Your task to perform on an android device: turn vacation reply on in the gmail app Image 0: 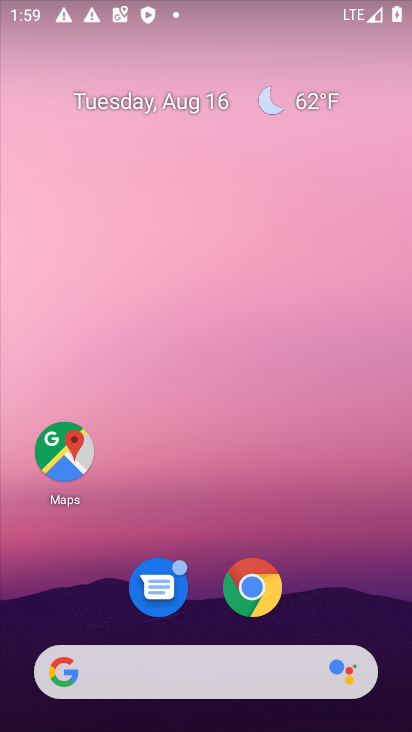
Step 0: drag from (190, 628) to (367, 0)
Your task to perform on an android device: turn vacation reply on in the gmail app Image 1: 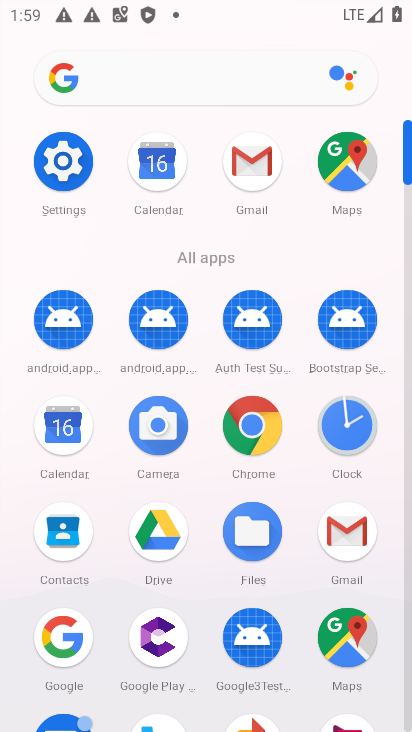
Step 1: click (260, 164)
Your task to perform on an android device: turn vacation reply on in the gmail app Image 2: 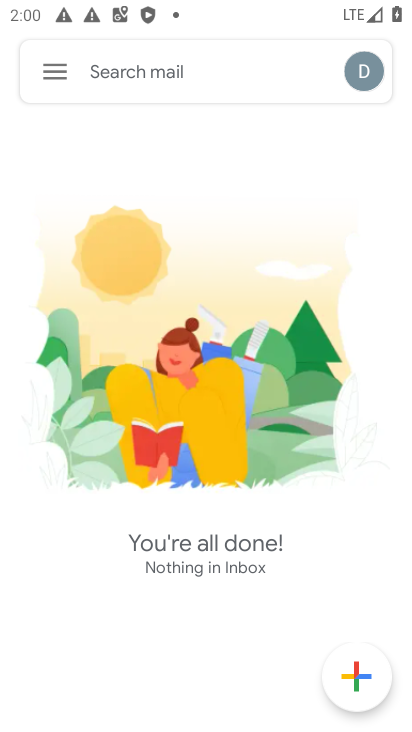
Step 2: click (49, 67)
Your task to perform on an android device: turn vacation reply on in the gmail app Image 3: 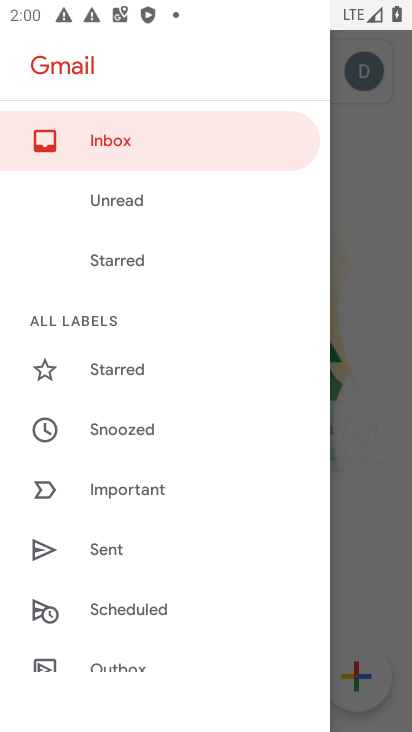
Step 3: drag from (121, 600) to (270, 51)
Your task to perform on an android device: turn vacation reply on in the gmail app Image 4: 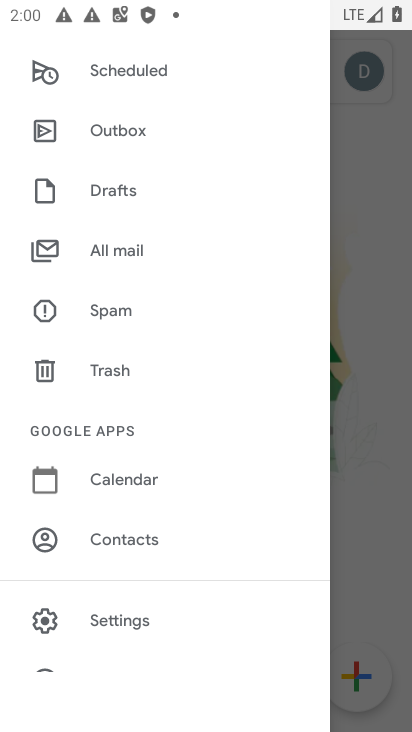
Step 4: click (120, 617)
Your task to perform on an android device: turn vacation reply on in the gmail app Image 5: 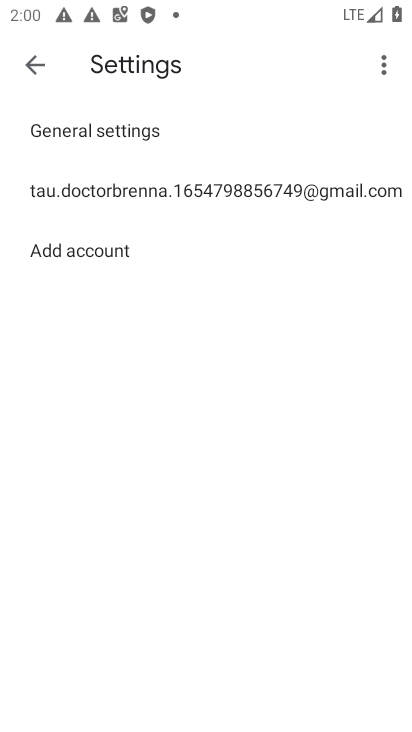
Step 5: click (184, 191)
Your task to perform on an android device: turn vacation reply on in the gmail app Image 6: 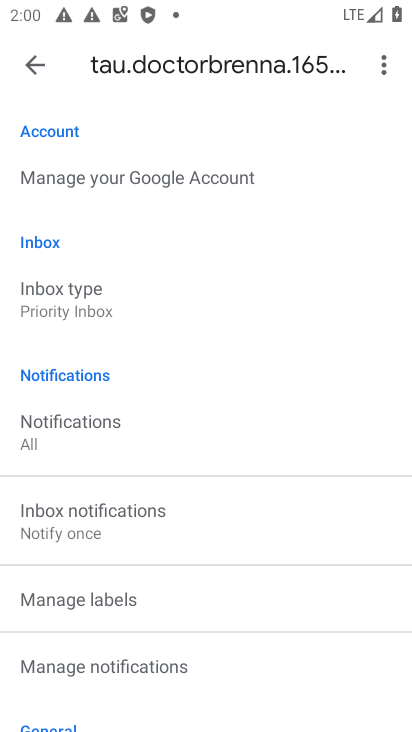
Step 6: drag from (148, 575) to (267, 80)
Your task to perform on an android device: turn vacation reply on in the gmail app Image 7: 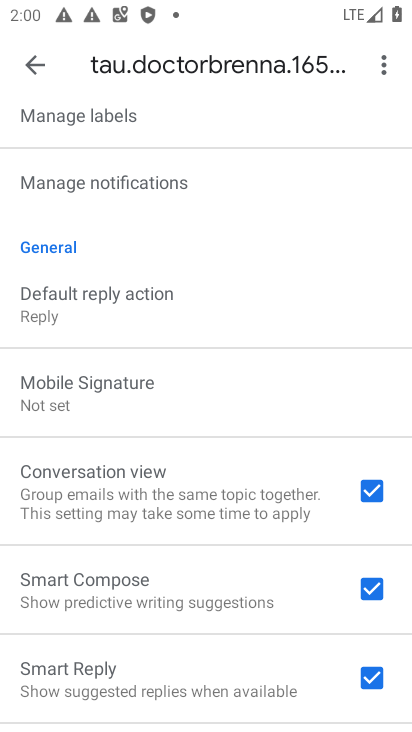
Step 7: drag from (124, 649) to (221, 297)
Your task to perform on an android device: turn vacation reply on in the gmail app Image 8: 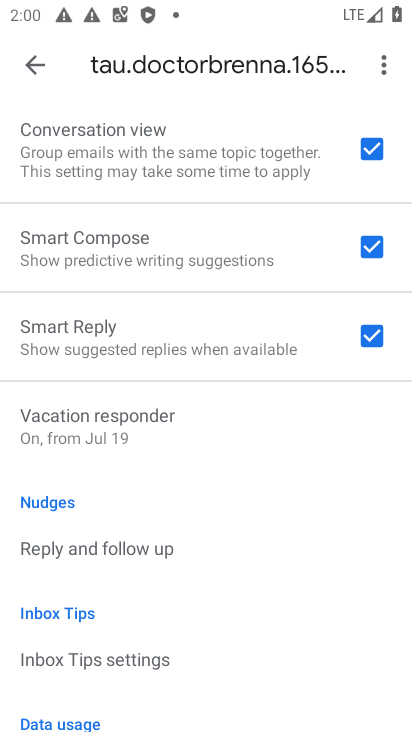
Step 8: click (90, 427)
Your task to perform on an android device: turn vacation reply on in the gmail app Image 9: 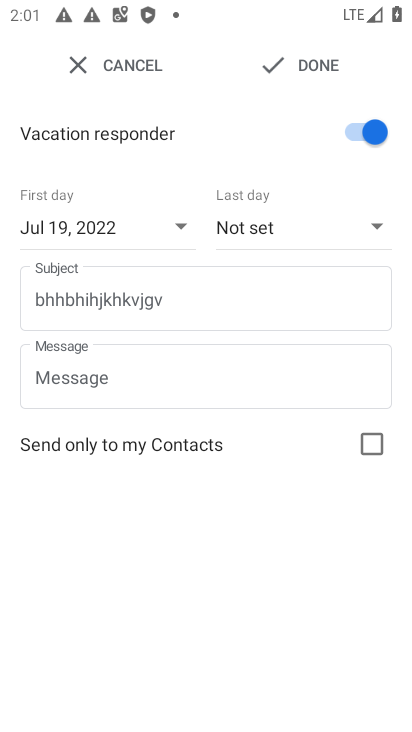
Step 9: task complete